Your task to perform on an android device: Open the map Image 0: 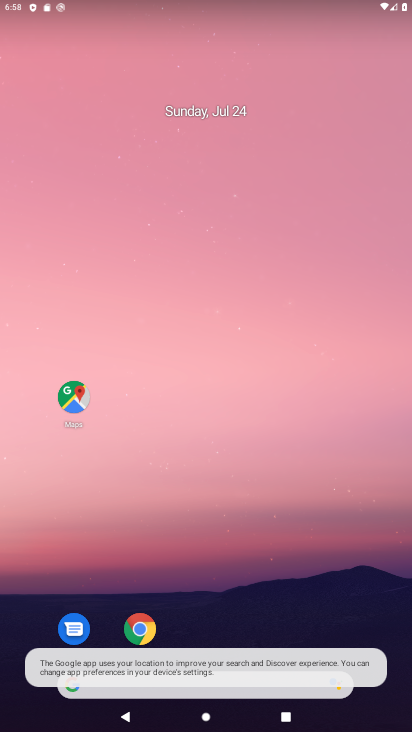
Step 0: drag from (370, 579) to (144, 75)
Your task to perform on an android device: Open the map Image 1: 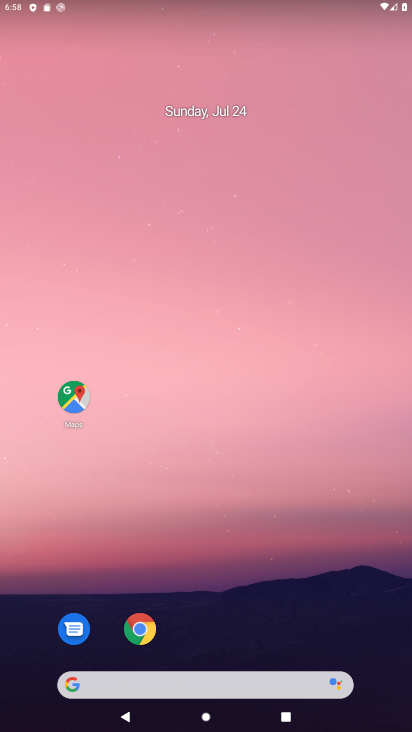
Step 1: drag from (307, 606) to (196, 11)
Your task to perform on an android device: Open the map Image 2: 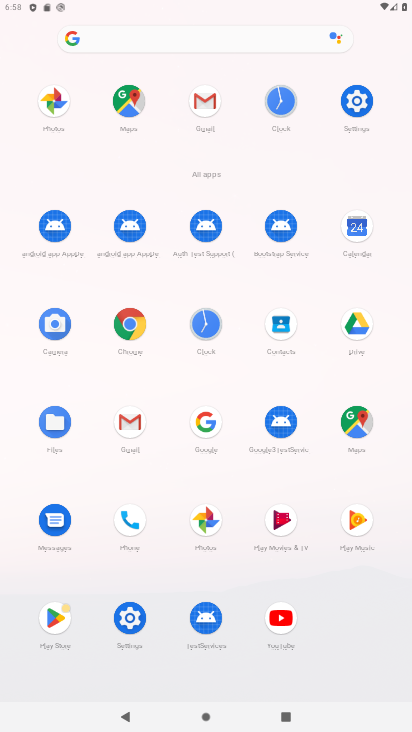
Step 2: drag from (359, 640) to (206, 99)
Your task to perform on an android device: Open the map Image 3: 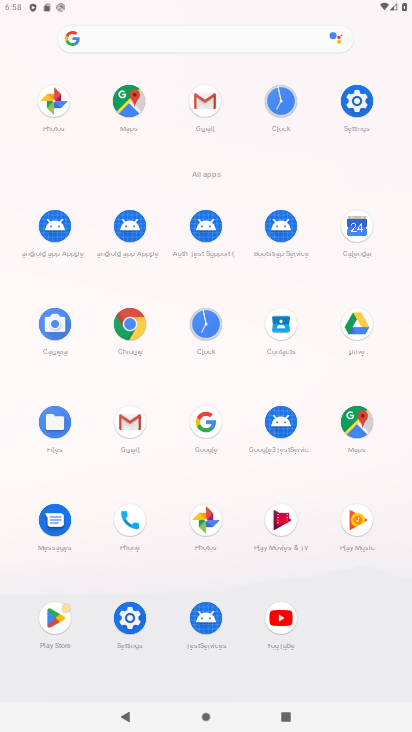
Step 3: click (360, 427)
Your task to perform on an android device: Open the map Image 4: 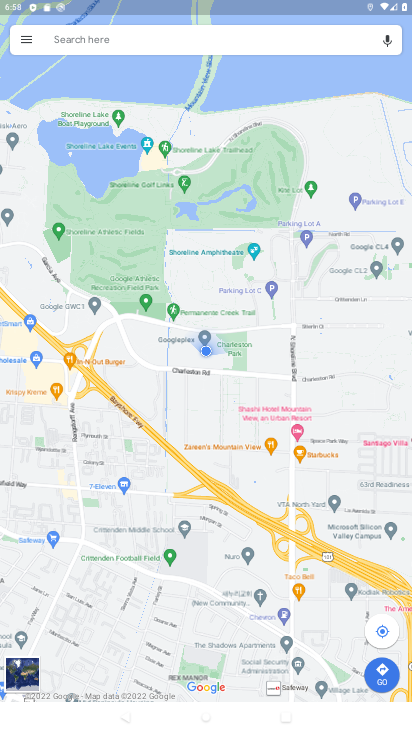
Step 4: task complete